Your task to perform on an android device: toggle improve location accuracy Image 0: 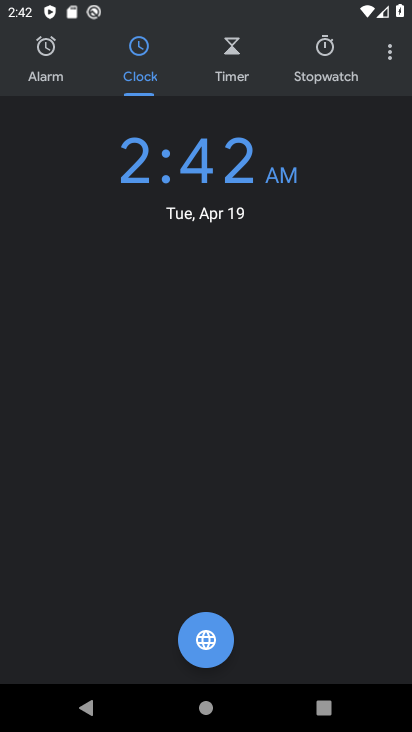
Step 0: press home button
Your task to perform on an android device: toggle improve location accuracy Image 1: 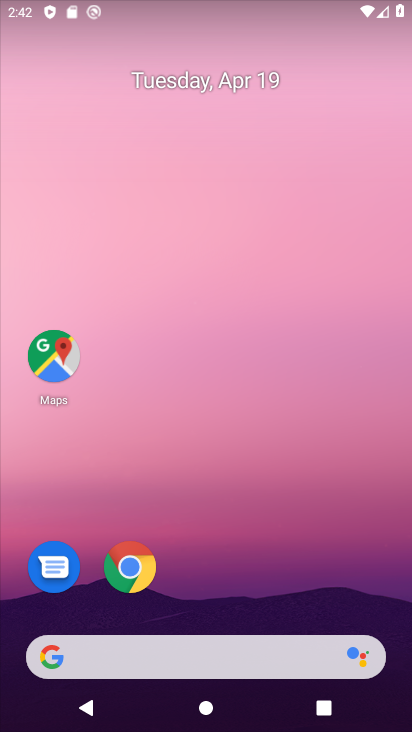
Step 1: drag from (354, 593) to (368, 101)
Your task to perform on an android device: toggle improve location accuracy Image 2: 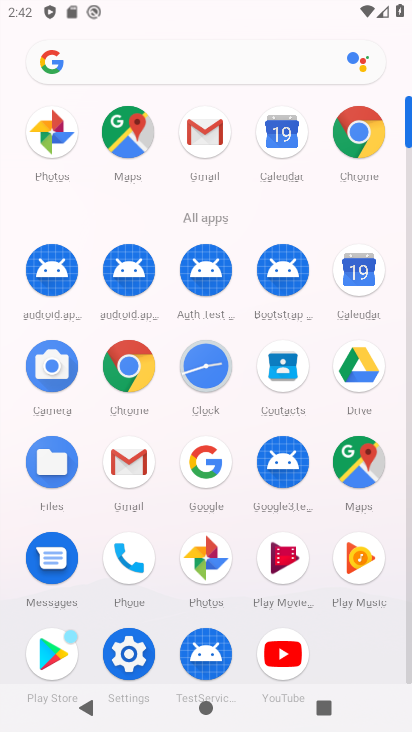
Step 2: click (108, 644)
Your task to perform on an android device: toggle improve location accuracy Image 3: 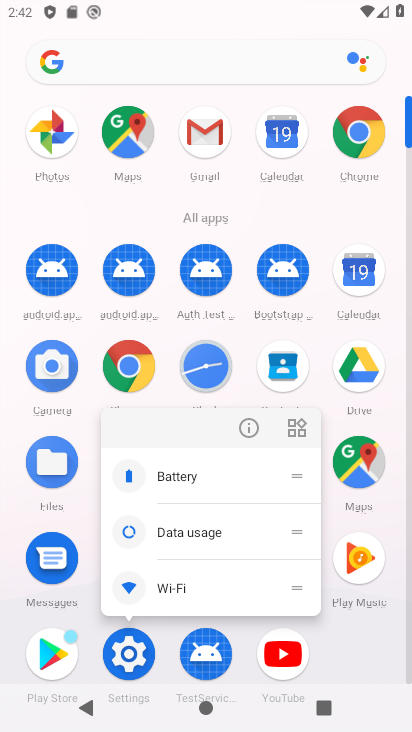
Step 3: click (126, 648)
Your task to perform on an android device: toggle improve location accuracy Image 4: 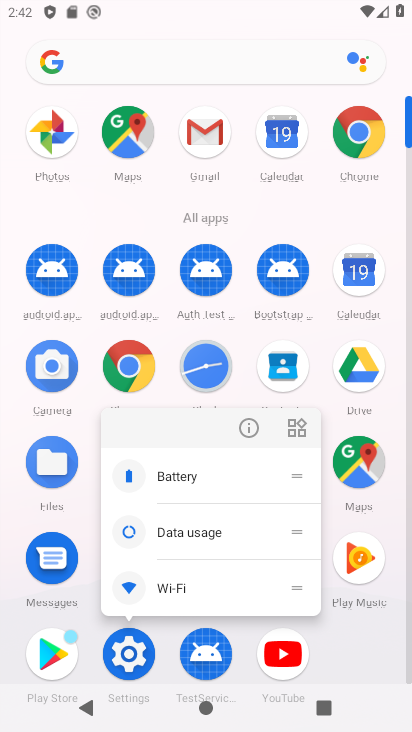
Step 4: click (126, 648)
Your task to perform on an android device: toggle improve location accuracy Image 5: 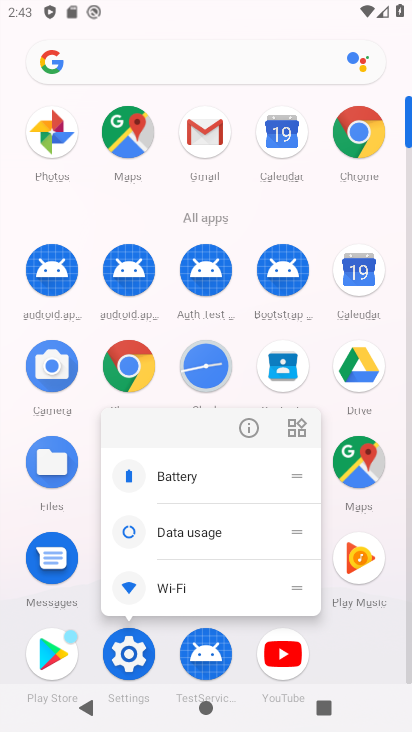
Step 5: click (154, 680)
Your task to perform on an android device: toggle improve location accuracy Image 6: 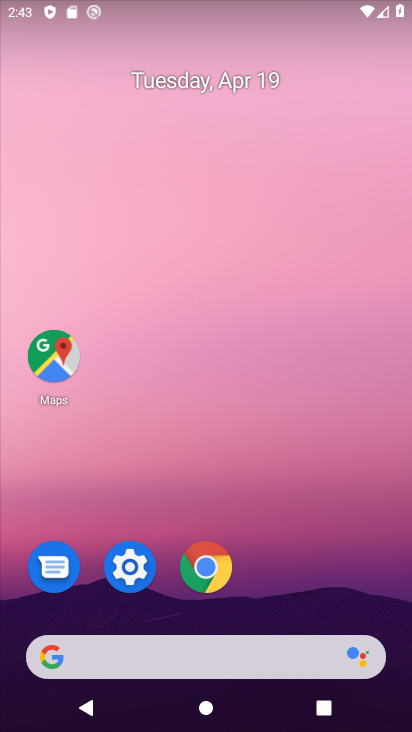
Step 6: drag from (302, 581) to (201, 153)
Your task to perform on an android device: toggle improve location accuracy Image 7: 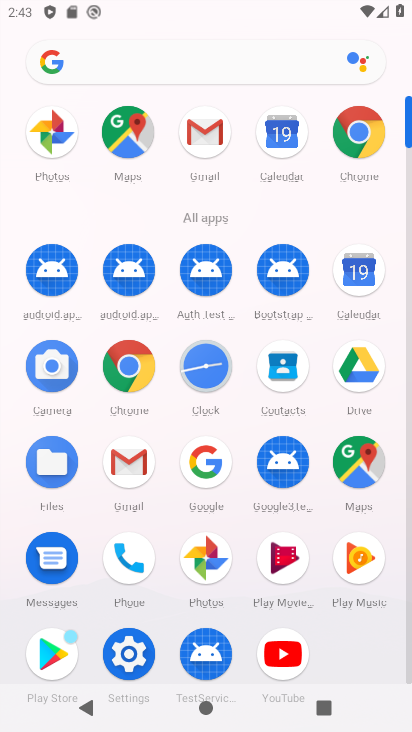
Step 7: drag from (366, 471) to (343, 229)
Your task to perform on an android device: toggle improve location accuracy Image 8: 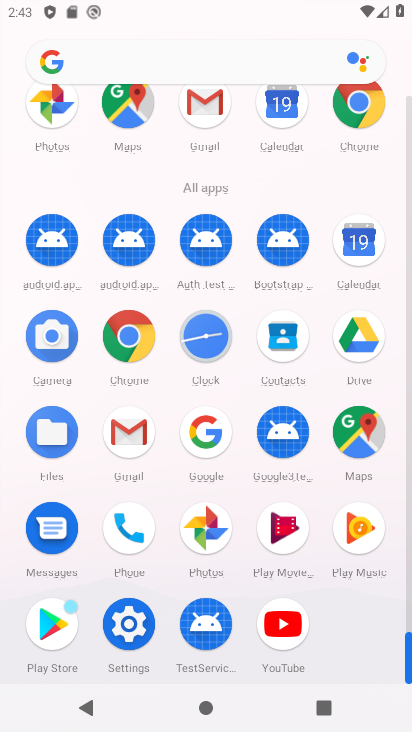
Step 8: click (132, 636)
Your task to perform on an android device: toggle improve location accuracy Image 9: 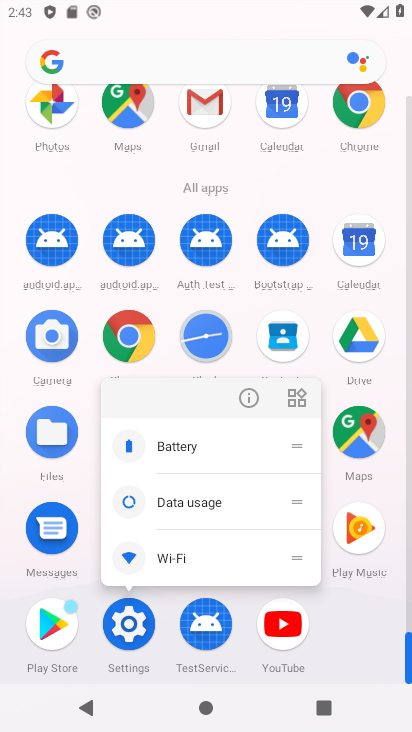
Step 9: click (144, 612)
Your task to perform on an android device: toggle improve location accuracy Image 10: 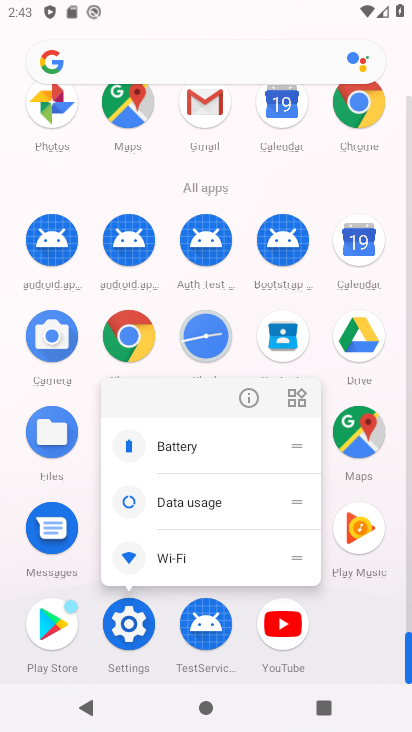
Step 10: click (147, 609)
Your task to perform on an android device: toggle improve location accuracy Image 11: 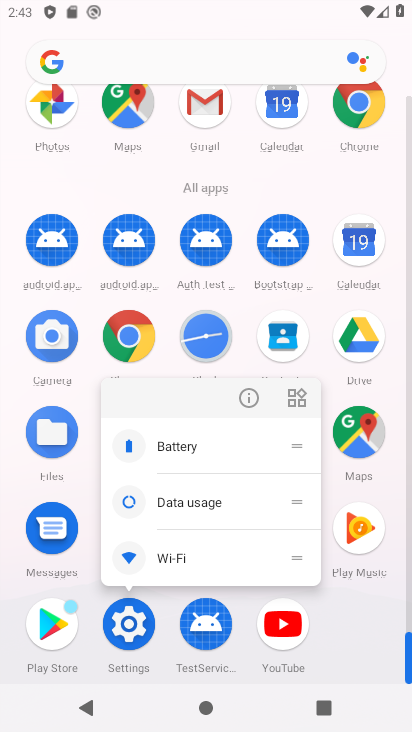
Step 11: click (133, 631)
Your task to perform on an android device: toggle improve location accuracy Image 12: 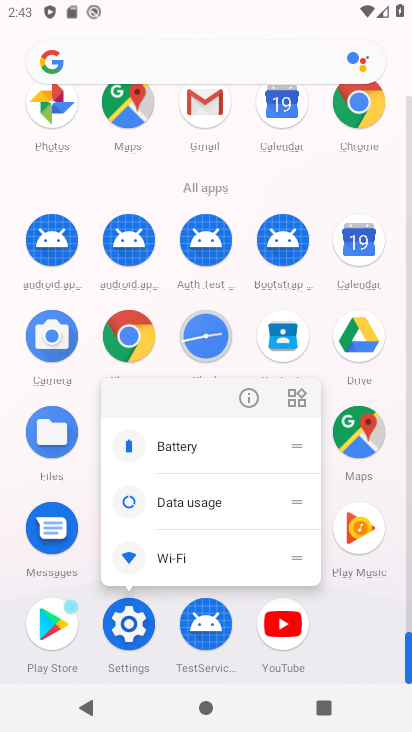
Step 12: click (133, 631)
Your task to perform on an android device: toggle improve location accuracy Image 13: 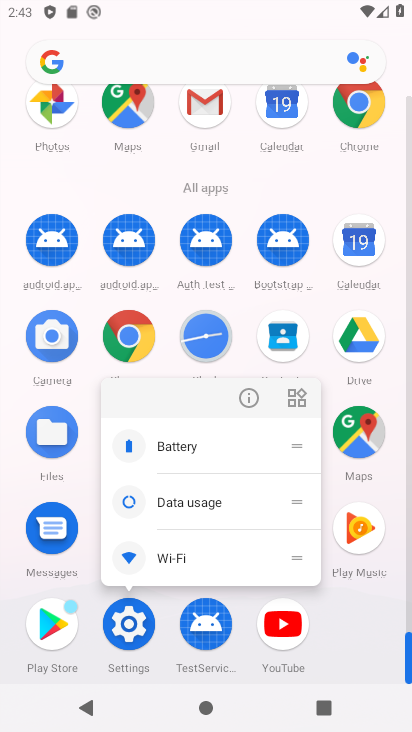
Step 13: click (133, 631)
Your task to perform on an android device: toggle improve location accuracy Image 14: 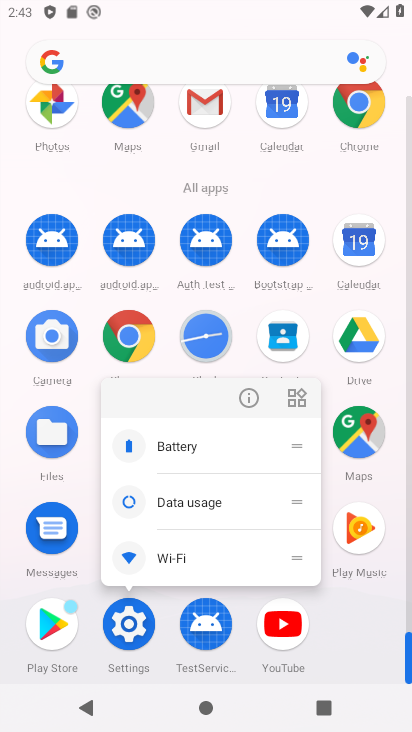
Step 14: click (133, 630)
Your task to perform on an android device: toggle improve location accuracy Image 15: 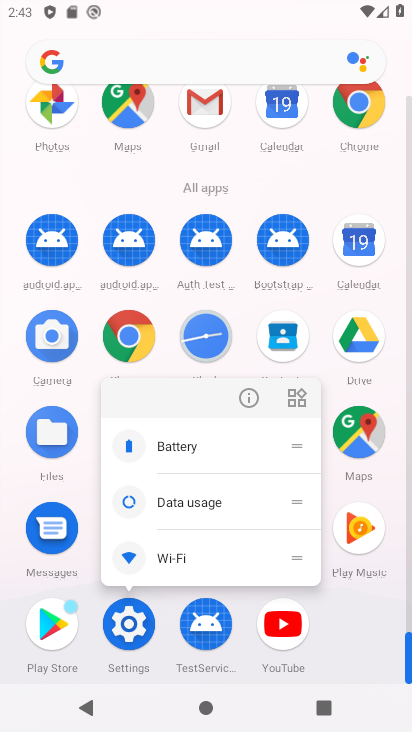
Step 15: click (133, 630)
Your task to perform on an android device: toggle improve location accuracy Image 16: 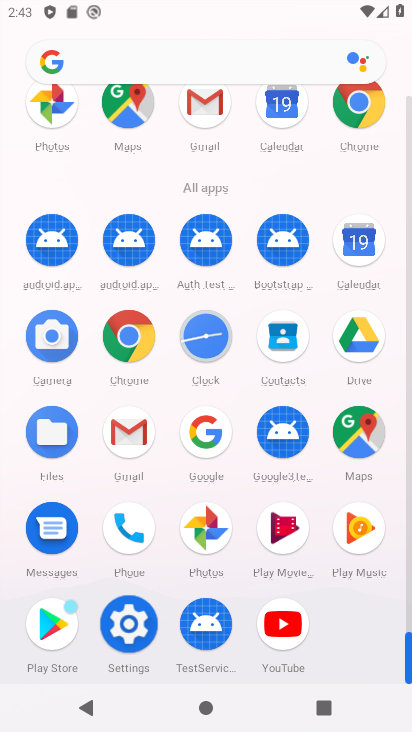
Step 16: click (133, 629)
Your task to perform on an android device: toggle improve location accuracy Image 17: 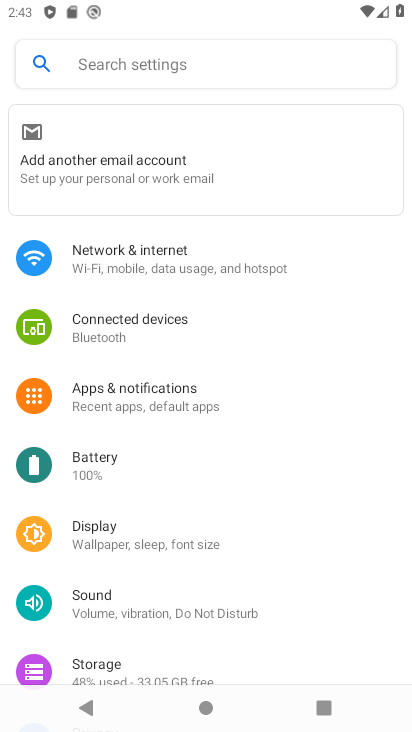
Step 17: drag from (163, 601) to (92, 228)
Your task to perform on an android device: toggle improve location accuracy Image 18: 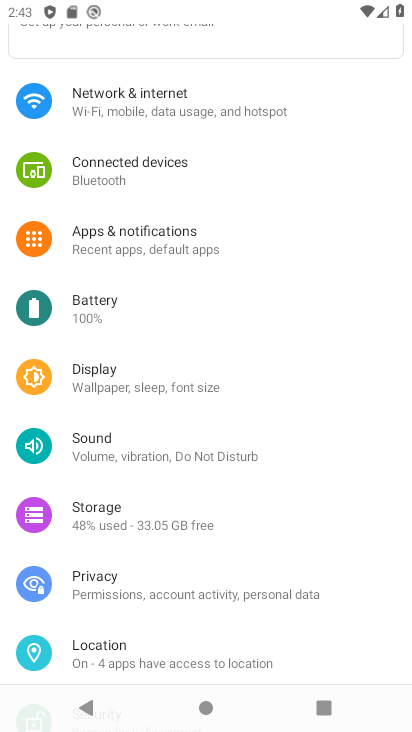
Step 18: click (150, 657)
Your task to perform on an android device: toggle improve location accuracy Image 19: 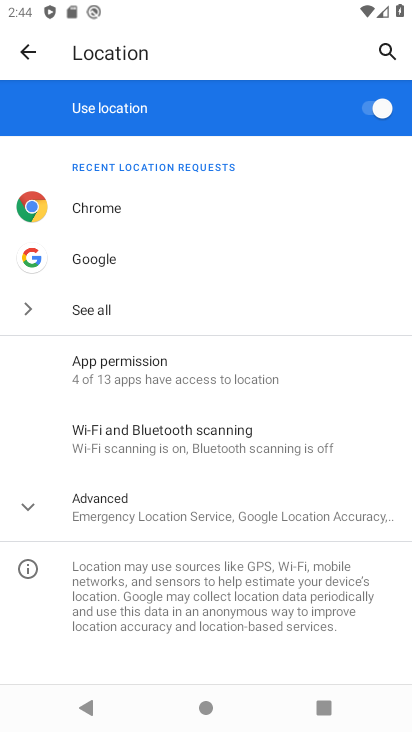
Step 19: drag from (274, 554) to (230, 232)
Your task to perform on an android device: toggle improve location accuracy Image 20: 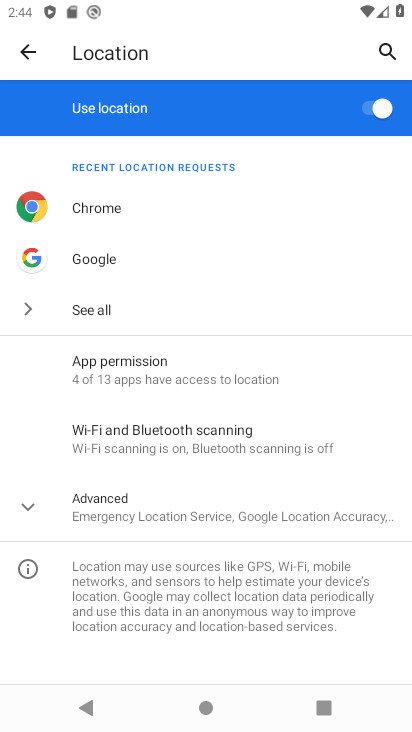
Step 20: drag from (162, 518) to (132, 182)
Your task to perform on an android device: toggle improve location accuracy Image 21: 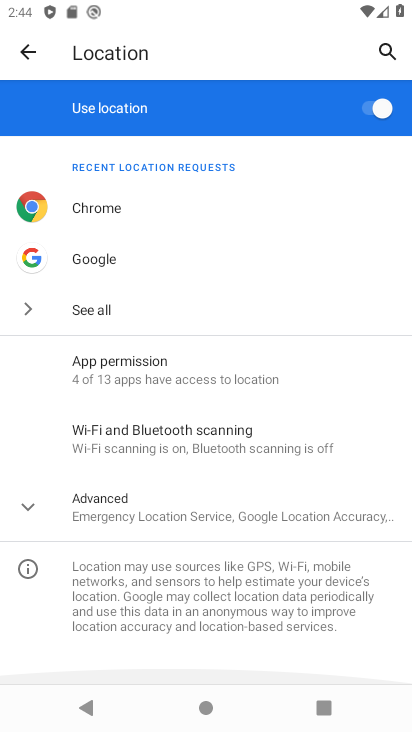
Step 21: click (125, 514)
Your task to perform on an android device: toggle improve location accuracy Image 22: 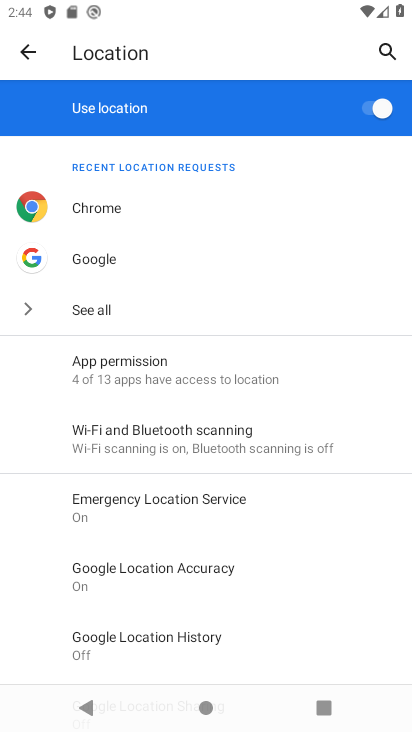
Step 22: drag from (169, 587) to (243, 218)
Your task to perform on an android device: toggle improve location accuracy Image 23: 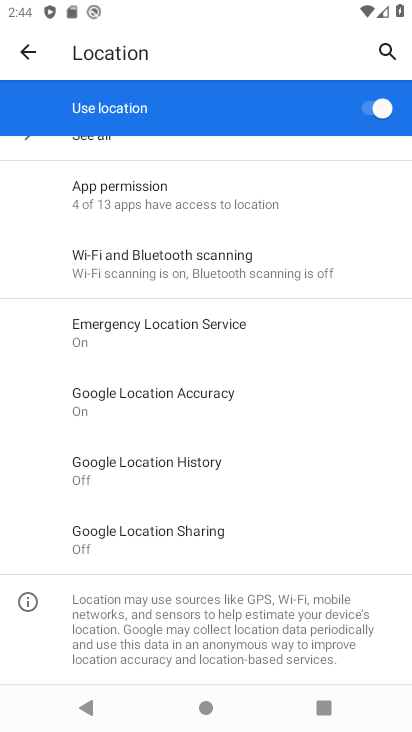
Step 23: click (181, 409)
Your task to perform on an android device: toggle improve location accuracy Image 24: 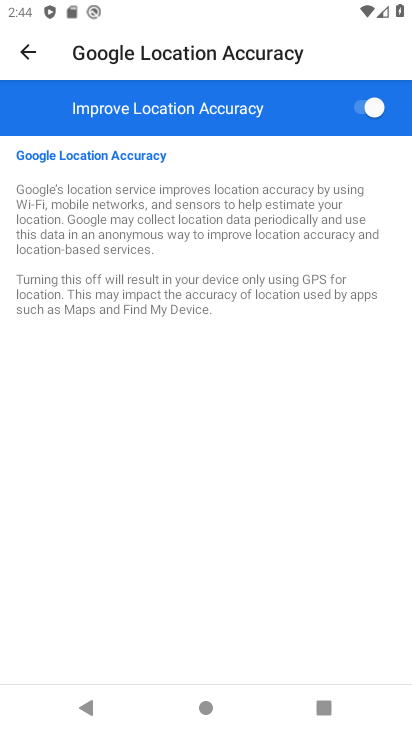
Step 24: click (361, 111)
Your task to perform on an android device: toggle improve location accuracy Image 25: 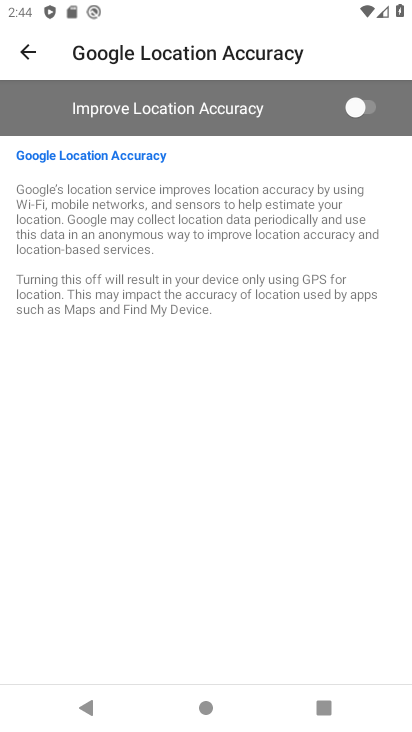
Step 25: task complete